Your task to perform on an android device: Open ESPN.com Image 0: 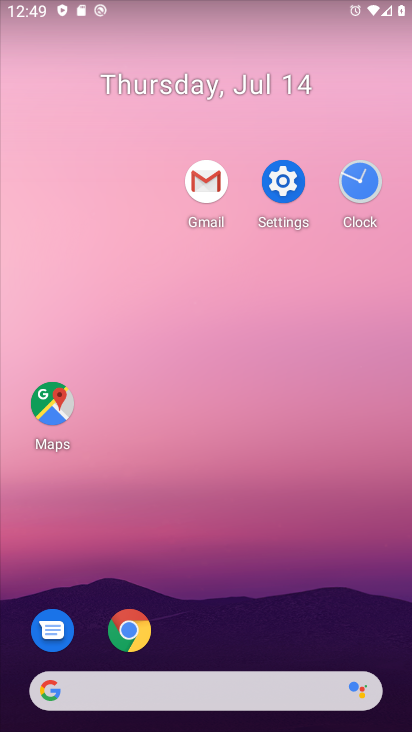
Step 0: click (144, 624)
Your task to perform on an android device: Open ESPN.com Image 1: 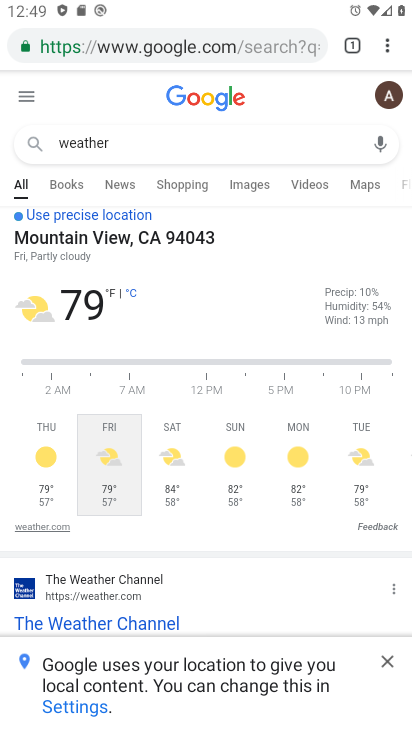
Step 1: click (363, 47)
Your task to perform on an android device: Open ESPN.com Image 2: 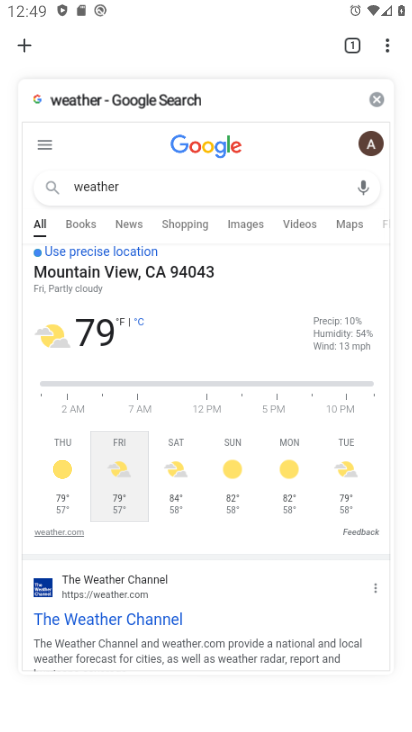
Step 2: click (21, 44)
Your task to perform on an android device: Open ESPN.com Image 3: 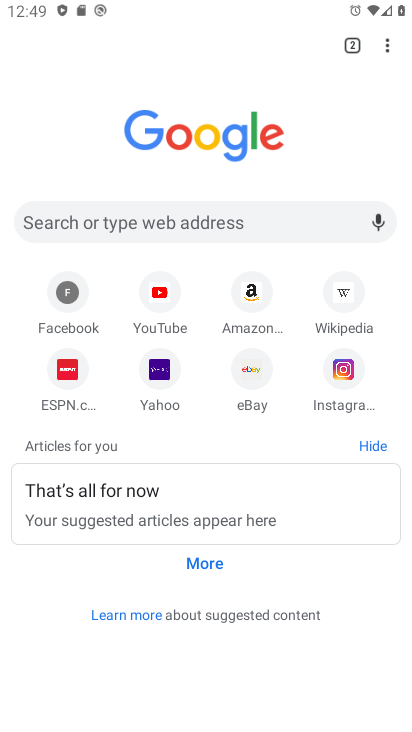
Step 3: click (59, 371)
Your task to perform on an android device: Open ESPN.com Image 4: 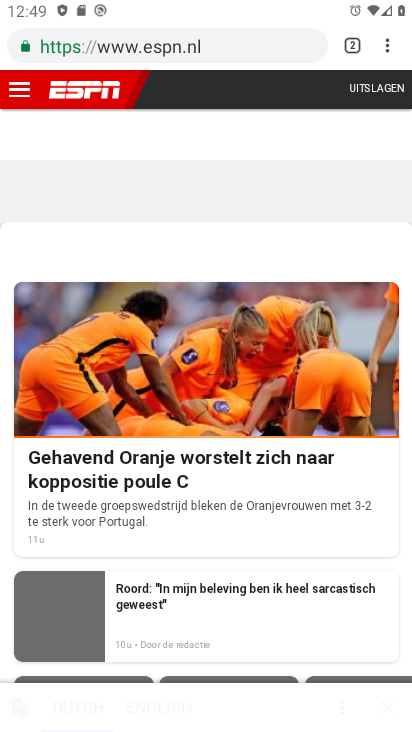
Step 4: task complete